Your task to perform on an android device: What's the weather? Image 0: 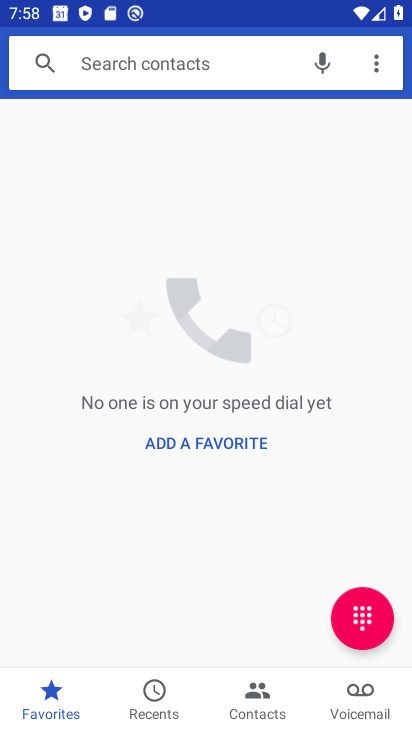
Step 0: click (40, 372)
Your task to perform on an android device: What's the weather? Image 1: 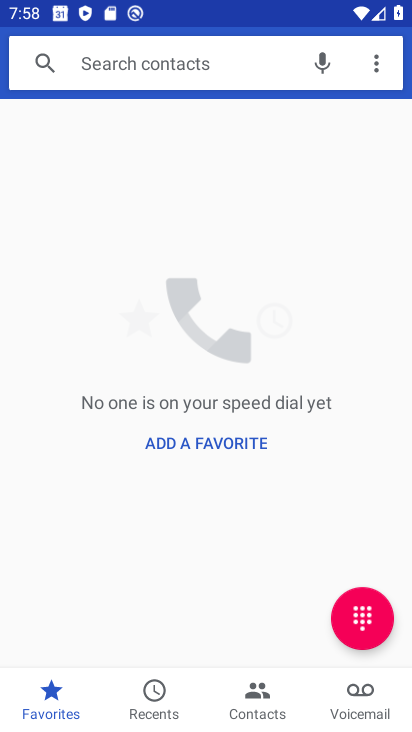
Step 1: press home button
Your task to perform on an android device: What's the weather? Image 2: 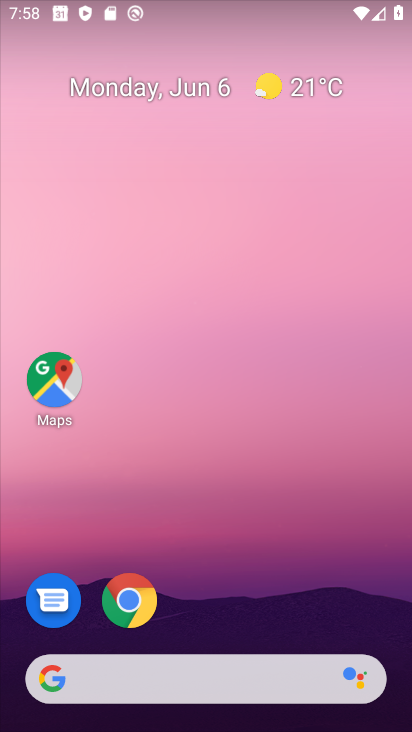
Step 2: click (294, 84)
Your task to perform on an android device: What's the weather? Image 3: 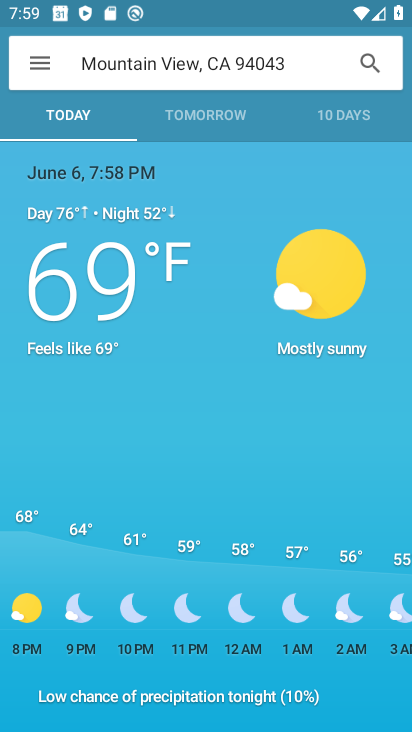
Step 3: task complete